Your task to perform on an android device: see tabs open on other devices in the chrome app Image 0: 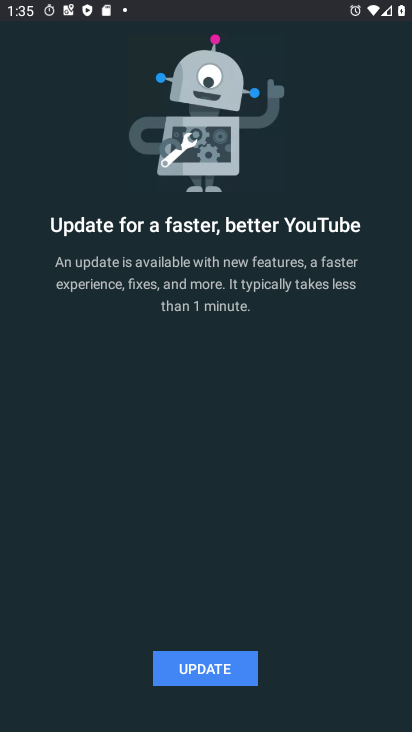
Step 0: press back button
Your task to perform on an android device: see tabs open on other devices in the chrome app Image 1: 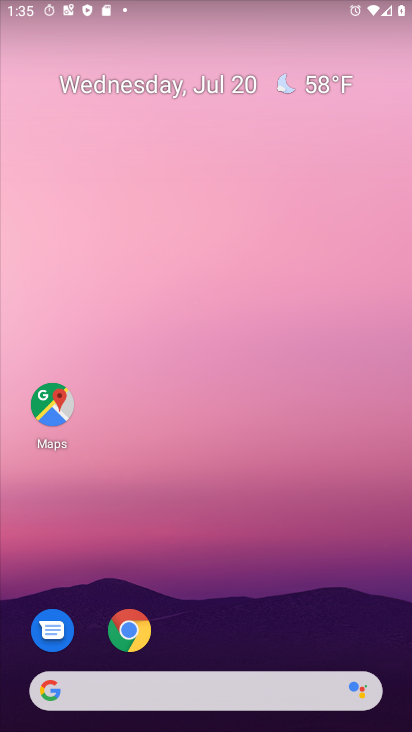
Step 1: click (126, 627)
Your task to perform on an android device: see tabs open on other devices in the chrome app Image 2: 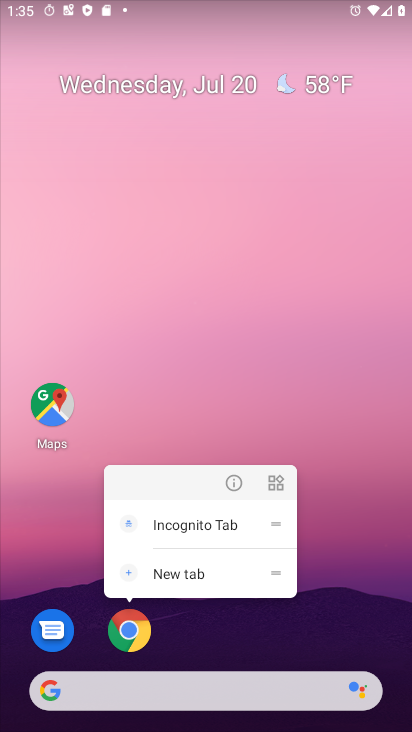
Step 2: click (138, 635)
Your task to perform on an android device: see tabs open on other devices in the chrome app Image 3: 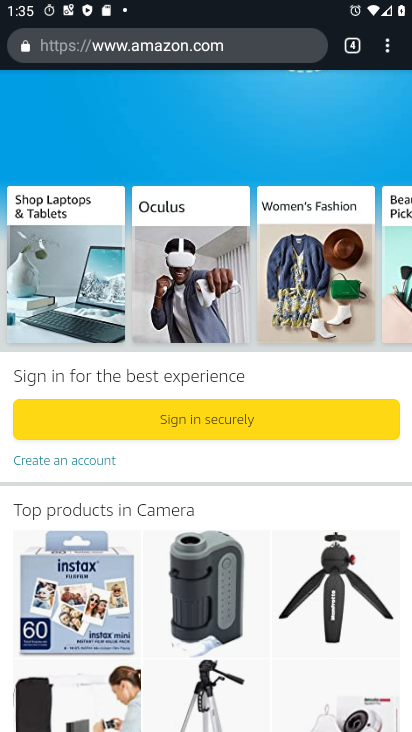
Step 3: task complete